Your task to perform on an android device: turn on translation in the chrome app Image 0: 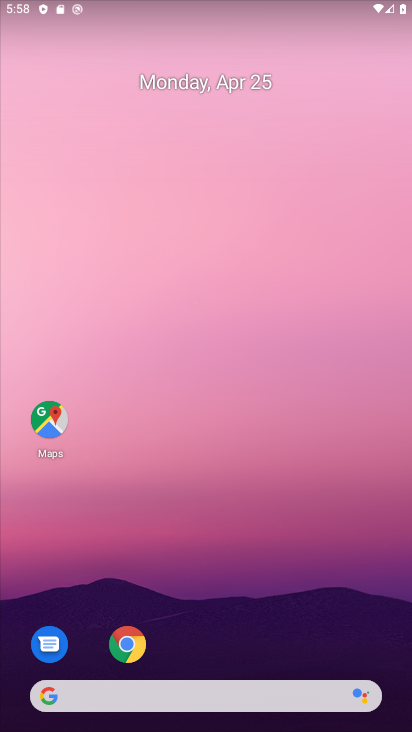
Step 0: drag from (273, 612) to (273, 116)
Your task to perform on an android device: turn on translation in the chrome app Image 1: 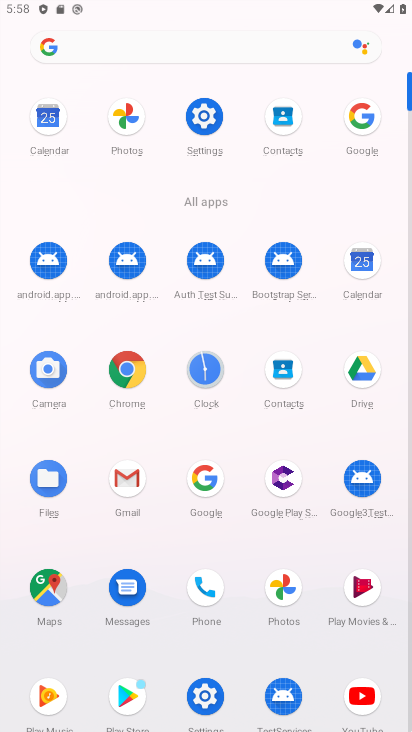
Step 1: click (127, 363)
Your task to perform on an android device: turn on translation in the chrome app Image 2: 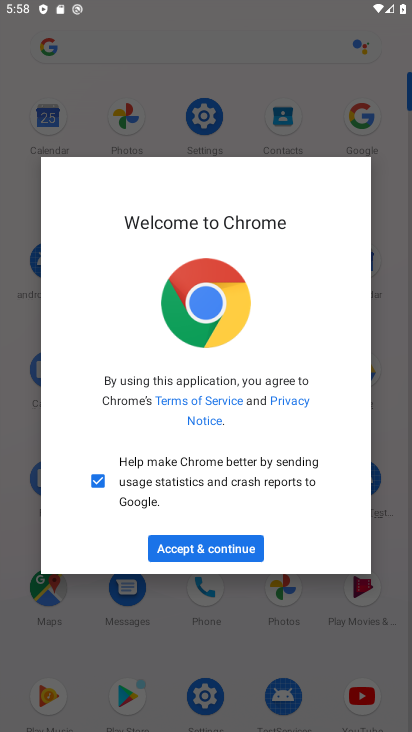
Step 2: click (231, 547)
Your task to perform on an android device: turn on translation in the chrome app Image 3: 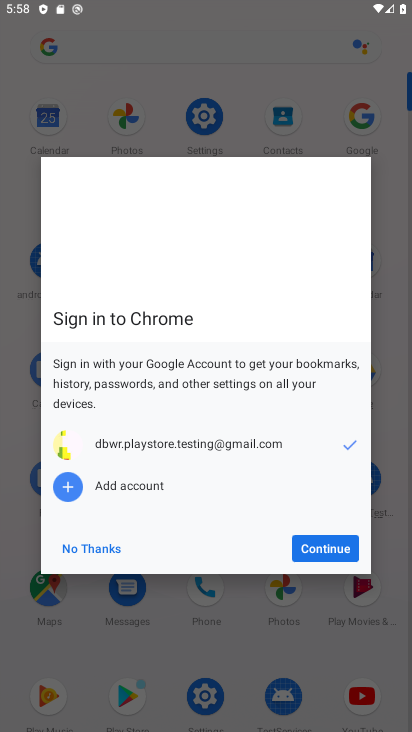
Step 3: click (318, 548)
Your task to perform on an android device: turn on translation in the chrome app Image 4: 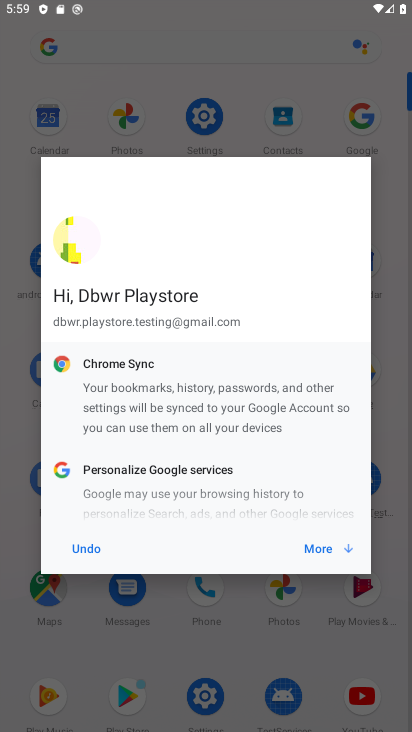
Step 4: click (322, 546)
Your task to perform on an android device: turn on translation in the chrome app Image 5: 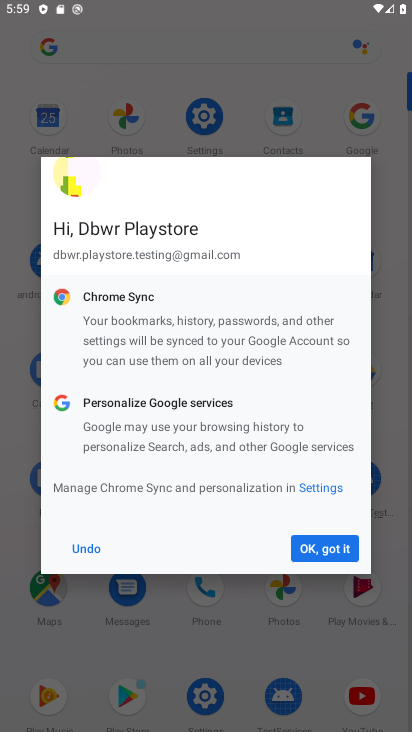
Step 5: click (322, 546)
Your task to perform on an android device: turn on translation in the chrome app Image 6: 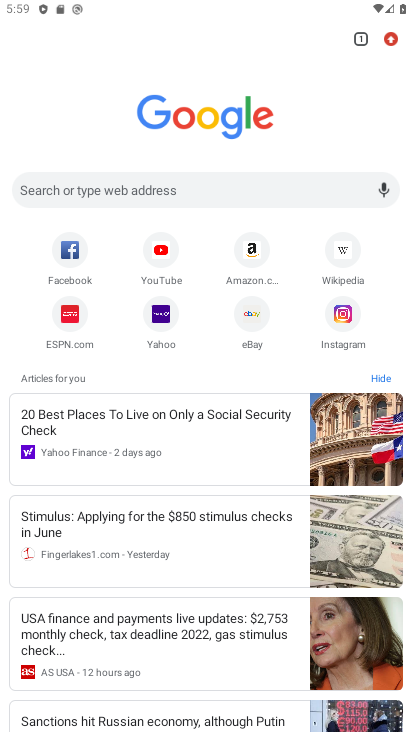
Step 6: click (396, 32)
Your task to perform on an android device: turn on translation in the chrome app Image 7: 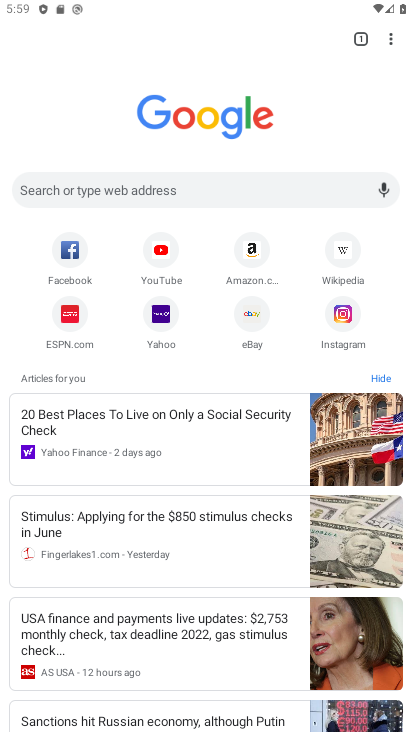
Step 7: click (394, 38)
Your task to perform on an android device: turn on translation in the chrome app Image 8: 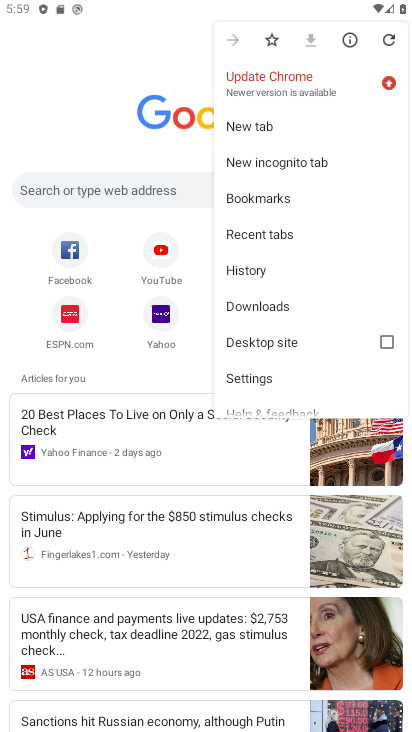
Step 8: click (256, 375)
Your task to perform on an android device: turn on translation in the chrome app Image 9: 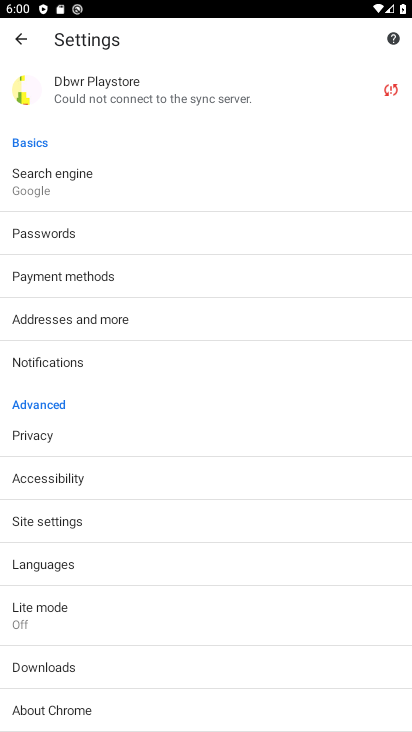
Step 9: click (91, 567)
Your task to perform on an android device: turn on translation in the chrome app Image 10: 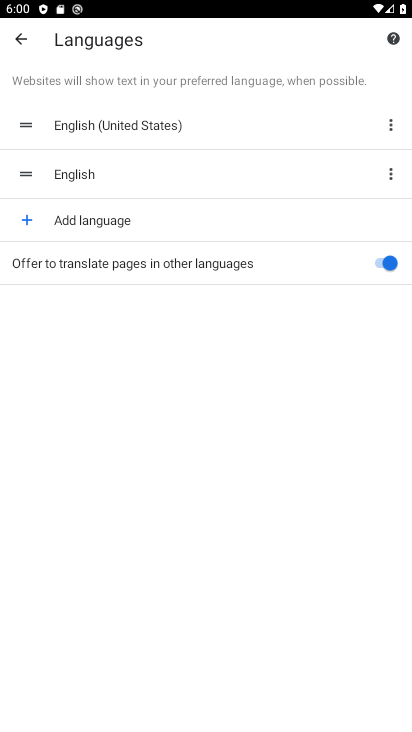
Step 10: task complete